Your task to perform on an android device: check data usage Image 0: 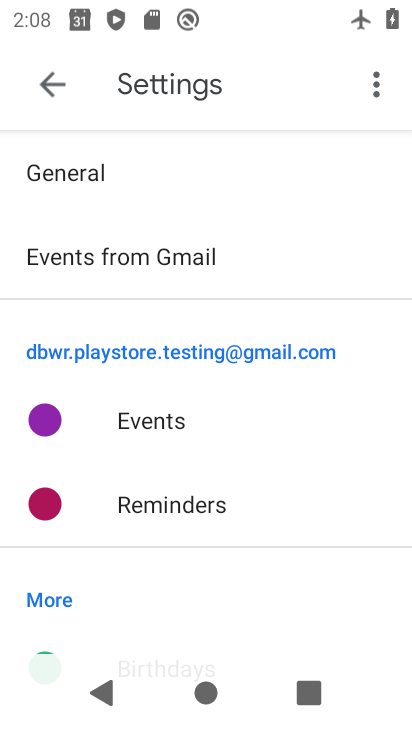
Step 0: press back button
Your task to perform on an android device: check data usage Image 1: 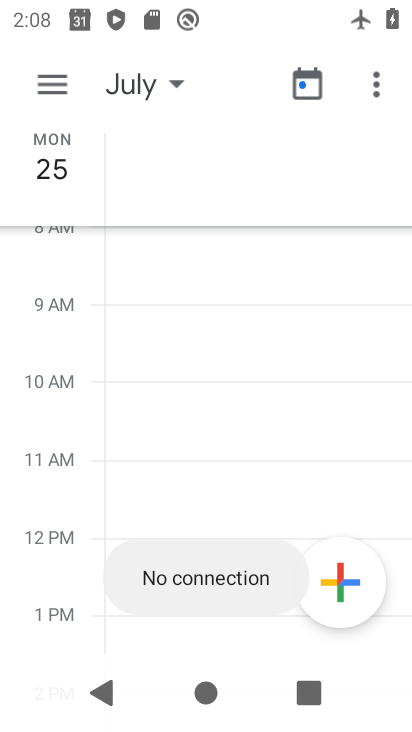
Step 1: press back button
Your task to perform on an android device: check data usage Image 2: 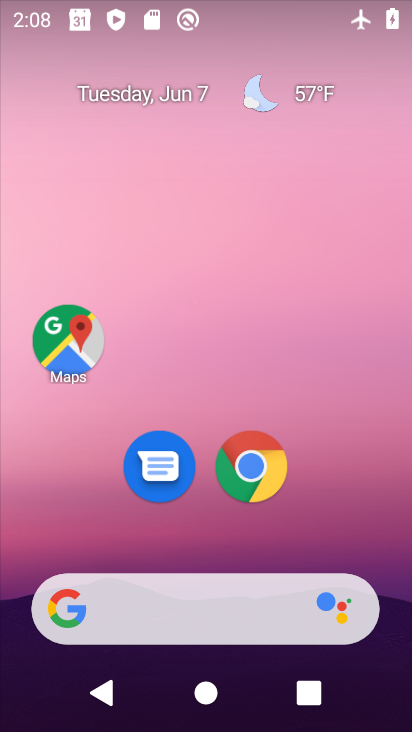
Step 2: drag from (186, 406) to (234, 42)
Your task to perform on an android device: check data usage Image 3: 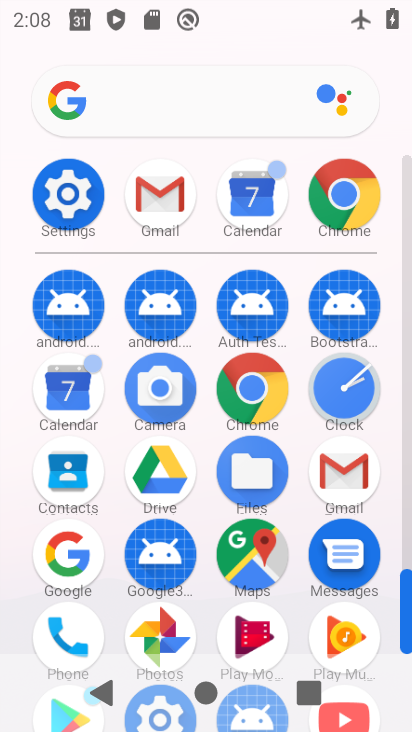
Step 3: click (66, 202)
Your task to perform on an android device: check data usage Image 4: 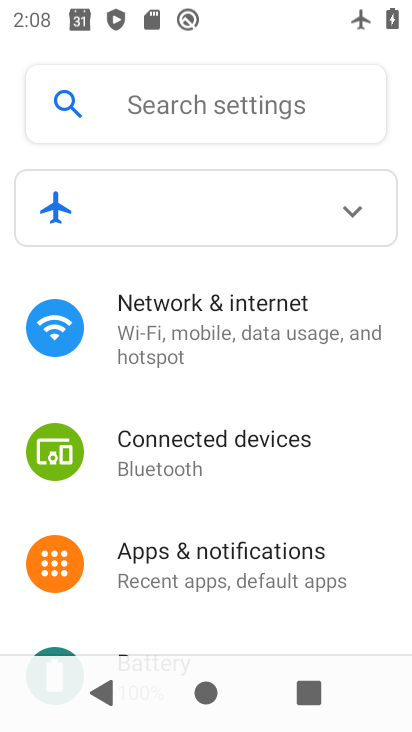
Step 4: click (220, 341)
Your task to perform on an android device: check data usage Image 5: 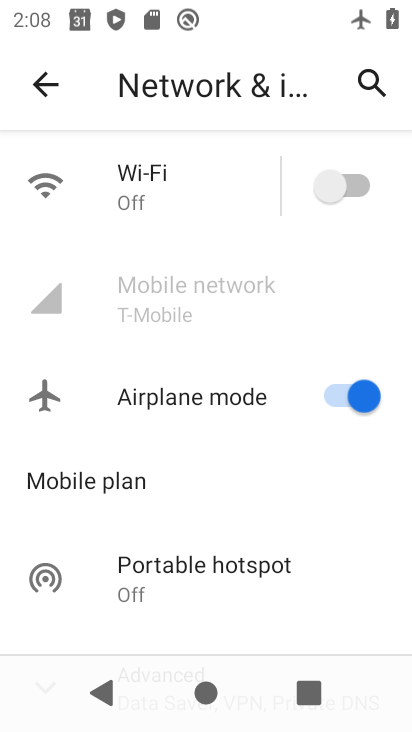
Step 5: click (381, 403)
Your task to perform on an android device: check data usage Image 6: 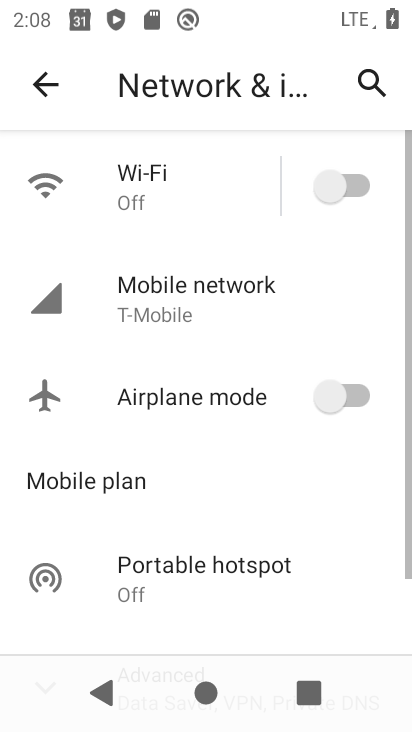
Step 6: click (185, 291)
Your task to perform on an android device: check data usage Image 7: 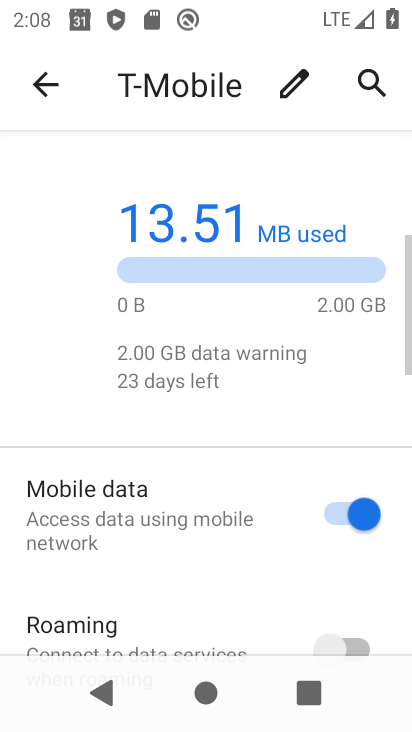
Step 7: drag from (185, 561) to (245, 83)
Your task to perform on an android device: check data usage Image 8: 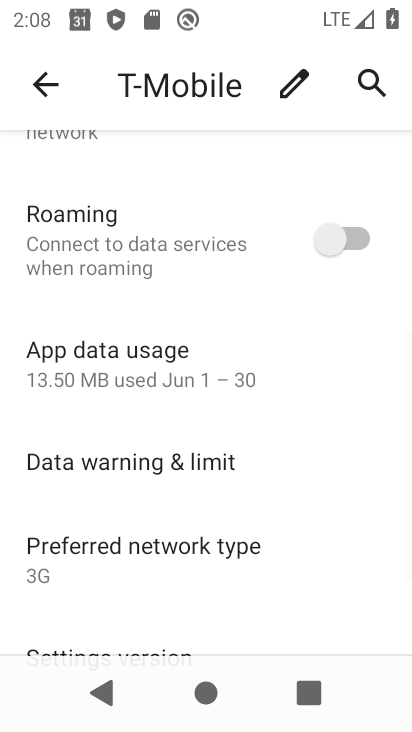
Step 8: click (102, 361)
Your task to perform on an android device: check data usage Image 9: 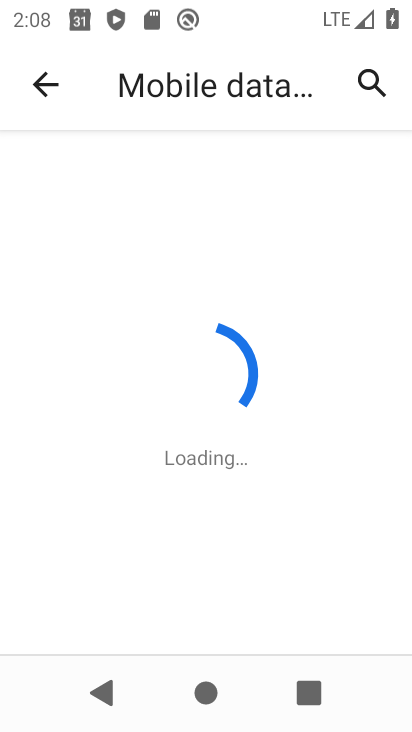
Step 9: task complete